Your task to perform on an android device: Play the last video I watched on Youtube Image 0: 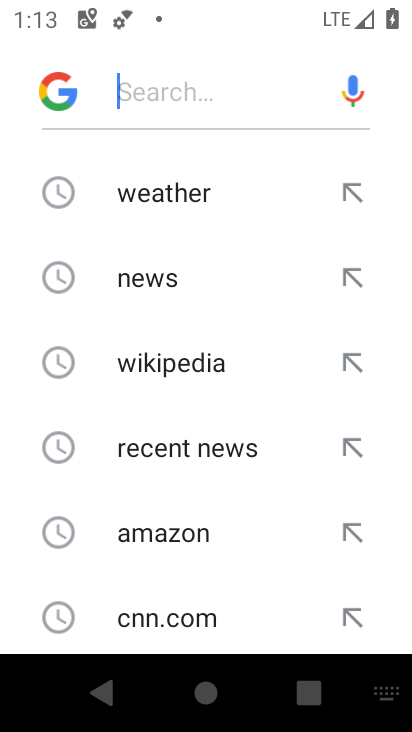
Step 0: press home button
Your task to perform on an android device: Play the last video I watched on Youtube Image 1: 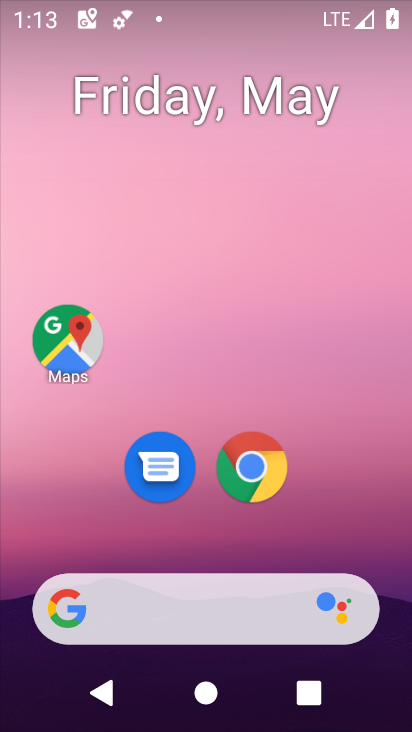
Step 1: click (368, 32)
Your task to perform on an android device: Play the last video I watched on Youtube Image 2: 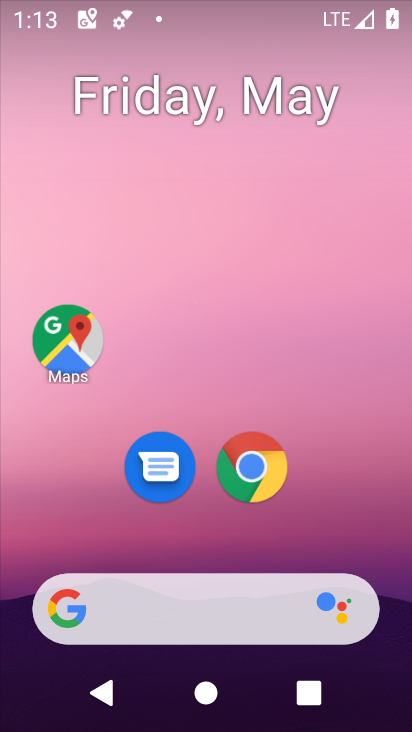
Step 2: drag from (332, 527) to (358, 103)
Your task to perform on an android device: Play the last video I watched on Youtube Image 3: 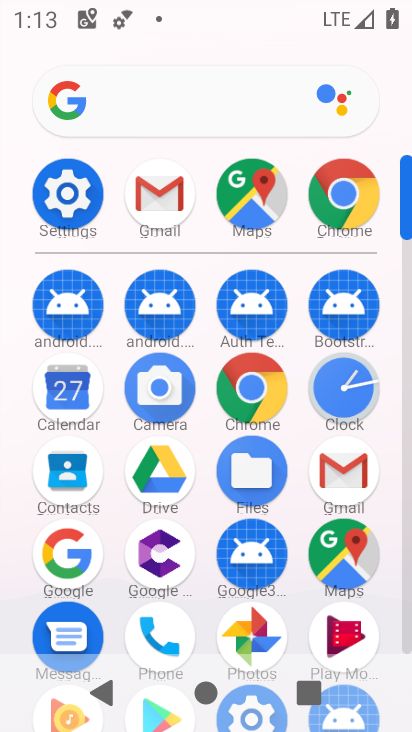
Step 3: drag from (387, 511) to (411, 149)
Your task to perform on an android device: Play the last video I watched on Youtube Image 4: 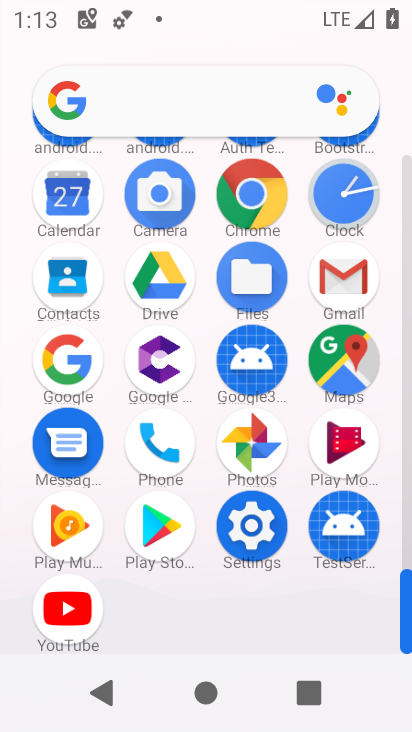
Step 4: click (76, 620)
Your task to perform on an android device: Play the last video I watched on Youtube Image 5: 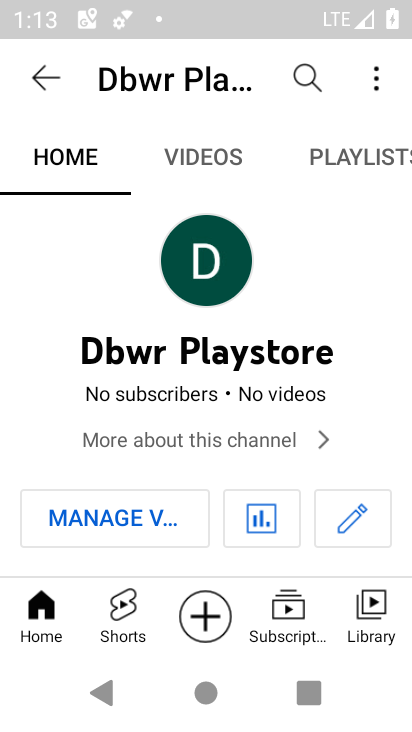
Step 5: click (378, 613)
Your task to perform on an android device: Play the last video I watched on Youtube Image 6: 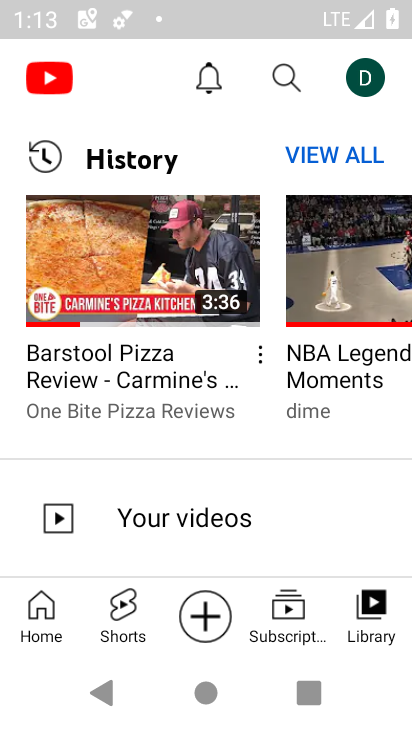
Step 6: click (143, 277)
Your task to perform on an android device: Play the last video I watched on Youtube Image 7: 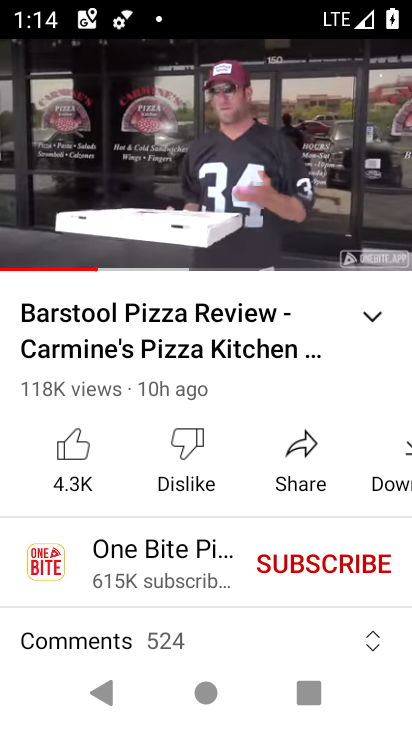
Step 7: task complete